Your task to perform on an android device: Open Yahoo.com Image 0: 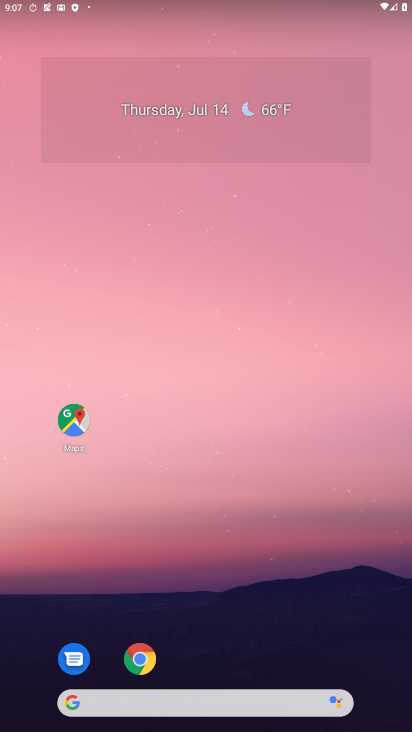
Step 0: press home button
Your task to perform on an android device: Open Yahoo.com Image 1: 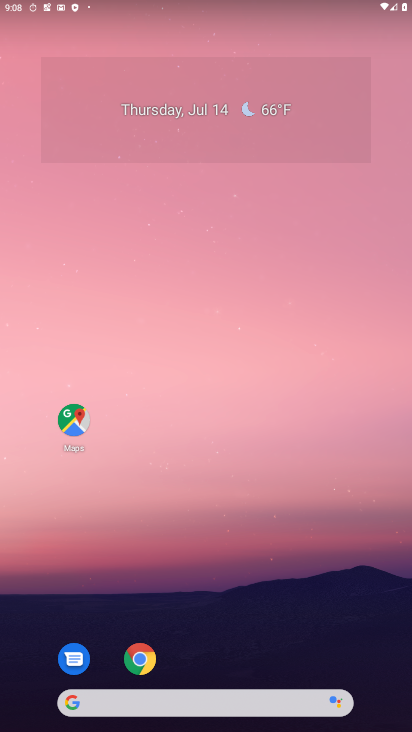
Step 1: click (68, 700)
Your task to perform on an android device: Open Yahoo.com Image 2: 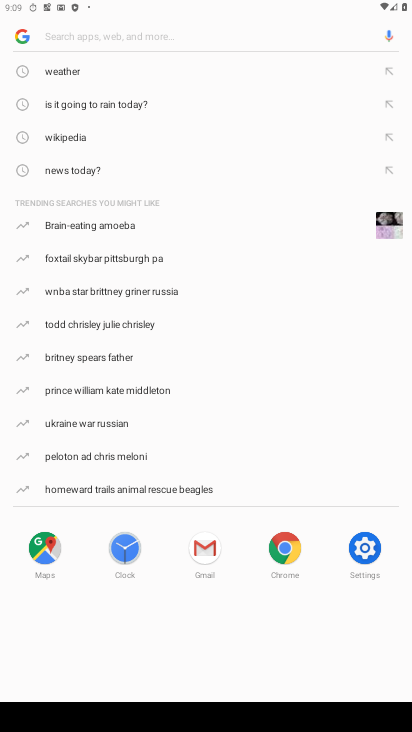
Step 2: type "Yahoo.com"
Your task to perform on an android device: Open Yahoo.com Image 3: 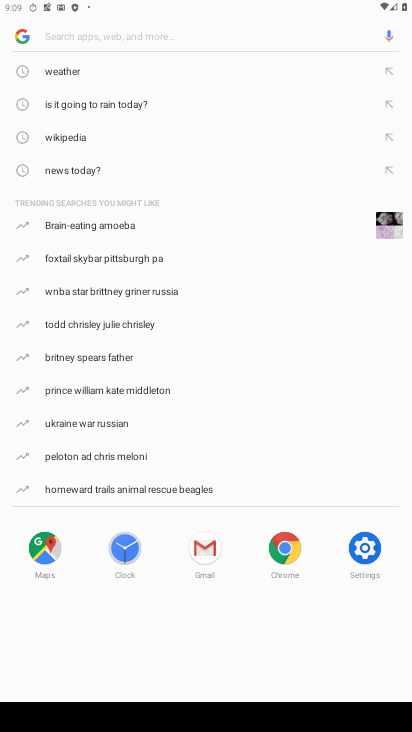
Step 3: click (77, 30)
Your task to perform on an android device: Open Yahoo.com Image 4: 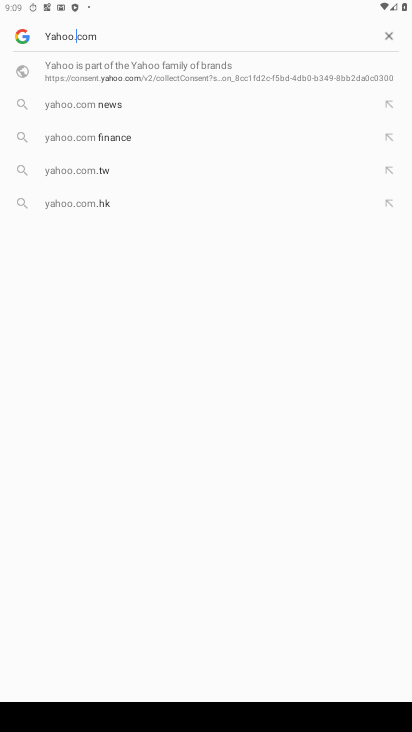
Step 4: press enter
Your task to perform on an android device: Open Yahoo.com Image 5: 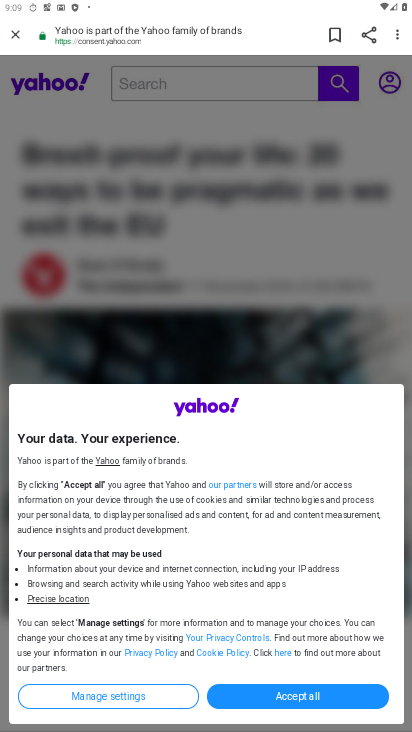
Step 5: click (269, 700)
Your task to perform on an android device: Open Yahoo.com Image 6: 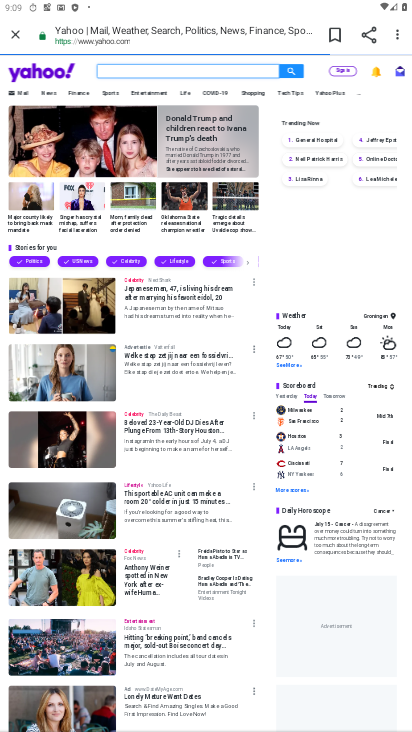
Step 6: task complete